Your task to perform on an android device: Go to privacy settings Image 0: 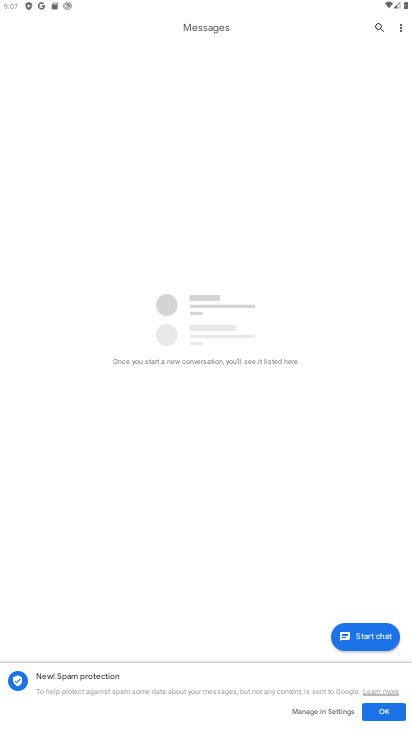
Step 0: press home button
Your task to perform on an android device: Go to privacy settings Image 1: 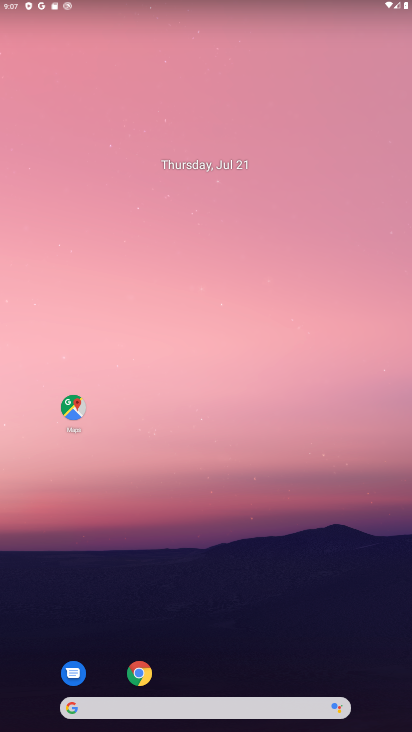
Step 1: drag from (212, 666) to (272, 48)
Your task to perform on an android device: Go to privacy settings Image 2: 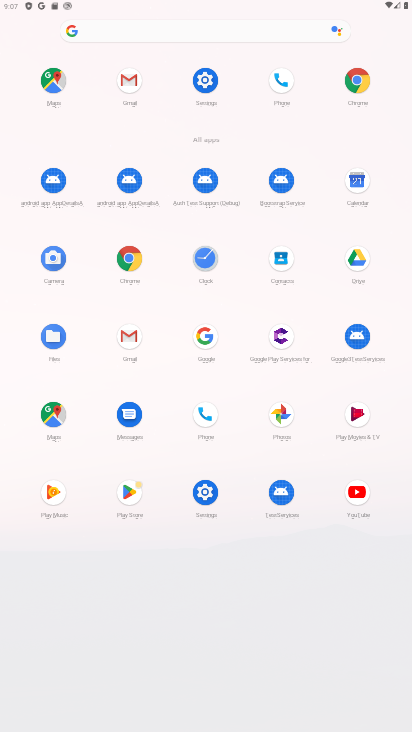
Step 2: click (202, 483)
Your task to perform on an android device: Go to privacy settings Image 3: 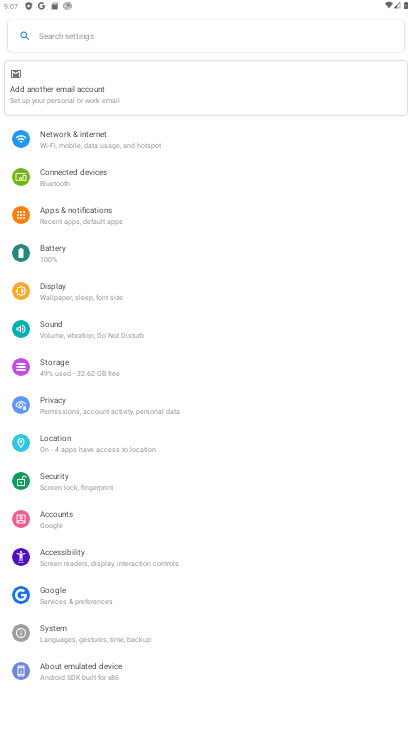
Step 3: click (69, 401)
Your task to perform on an android device: Go to privacy settings Image 4: 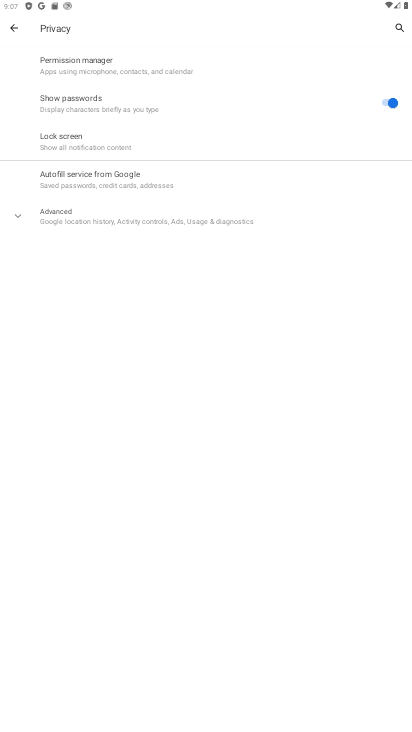
Step 4: click (19, 213)
Your task to perform on an android device: Go to privacy settings Image 5: 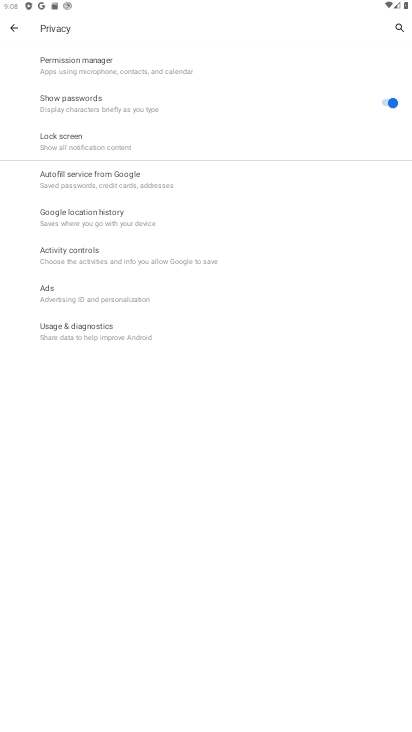
Step 5: task complete